Your task to perform on an android device: Open Chrome and go to settings Image 0: 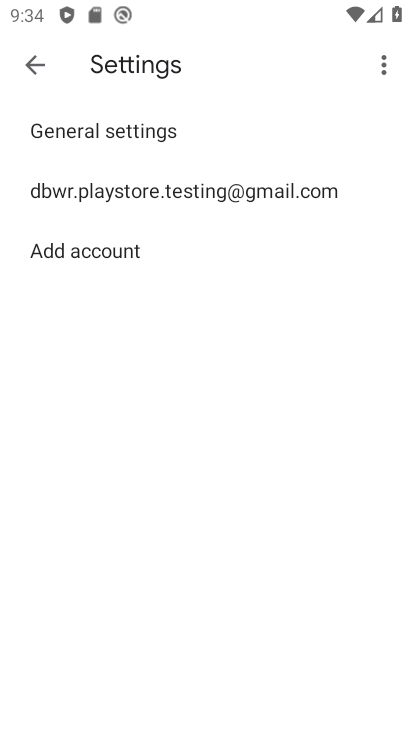
Step 0: click (27, 60)
Your task to perform on an android device: Open Chrome and go to settings Image 1: 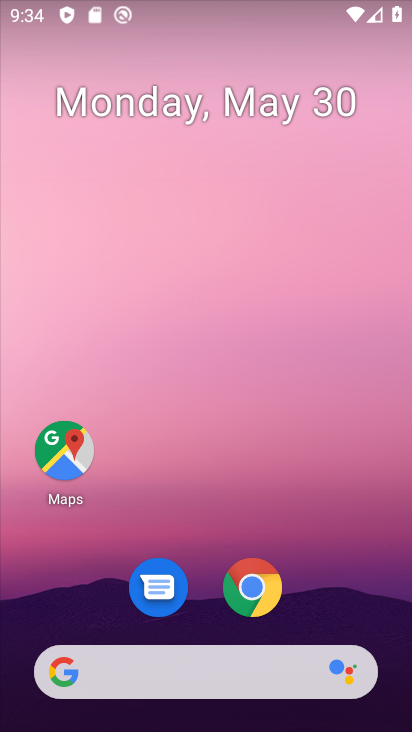
Step 1: drag from (320, 529) to (252, 2)
Your task to perform on an android device: Open Chrome and go to settings Image 2: 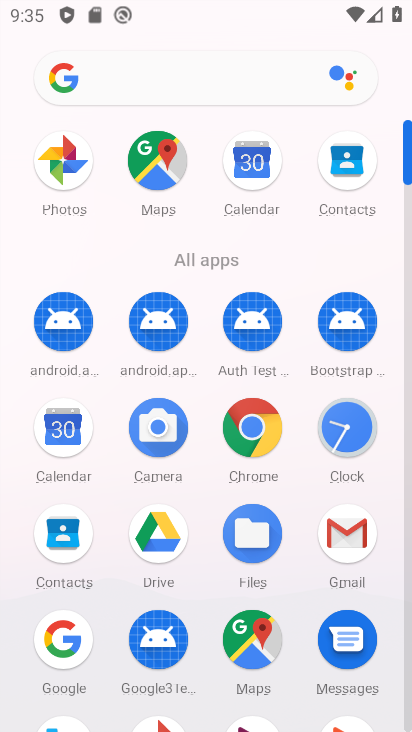
Step 2: click (247, 423)
Your task to perform on an android device: Open Chrome and go to settings Image 3: 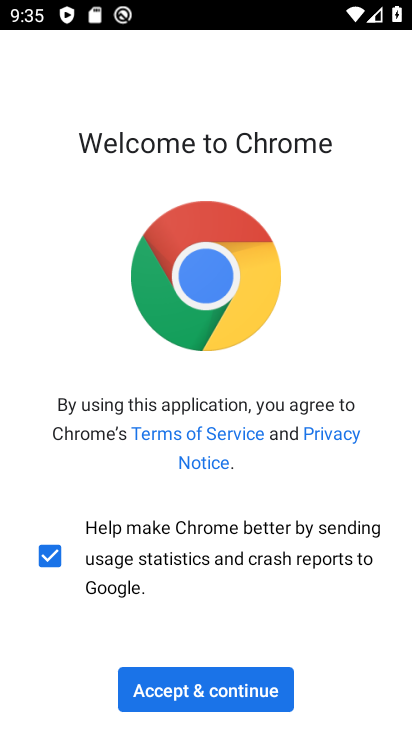
Step 3: click (211, 694)
Your task to perform on an android device: Open Chrome and go to settings Image 4: 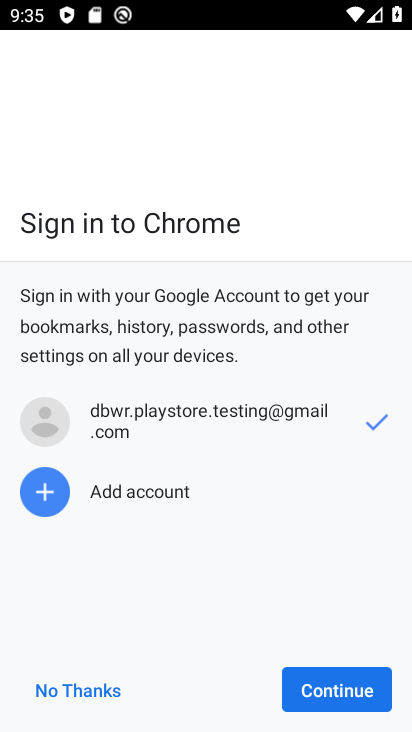
Step 4: click (301, 688)
Your task to perform on an android device: Open Chrome and go to settings Image 5: 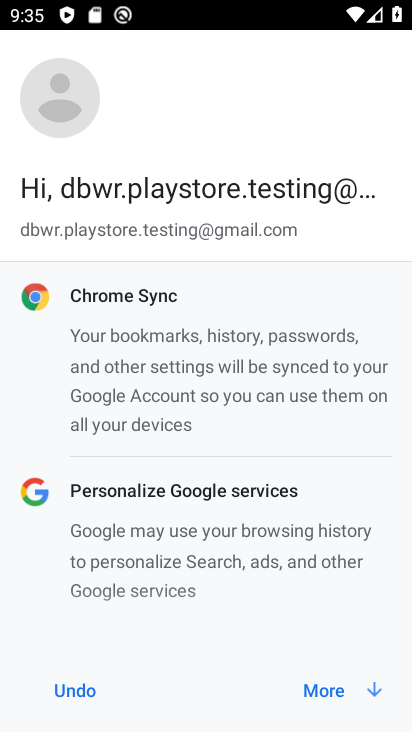
Step 5: click (311, 683)
Your task to perform on an android device: Open Chrome and go to settings Image 6: 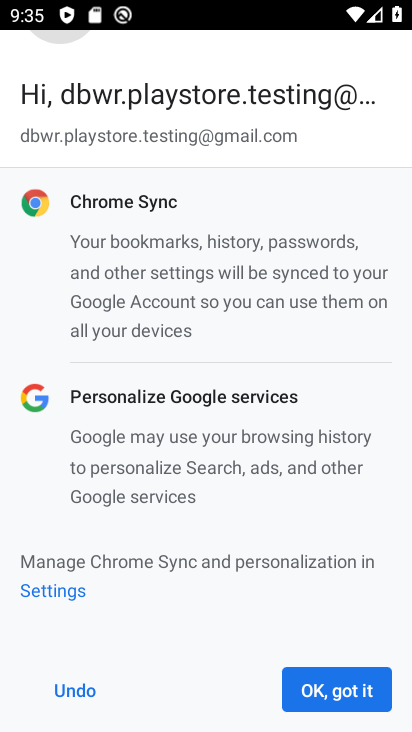
Step 6: click (312, 683)
Your task to perform on an android device: Open Chrome and go to settings Image 7: 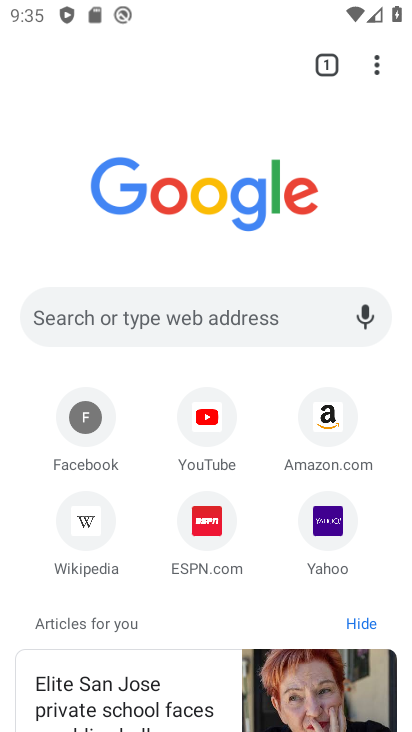
Step 7: task complete